Your task to perform on an android device: Open calendar and show me the first week of next month Image 0: 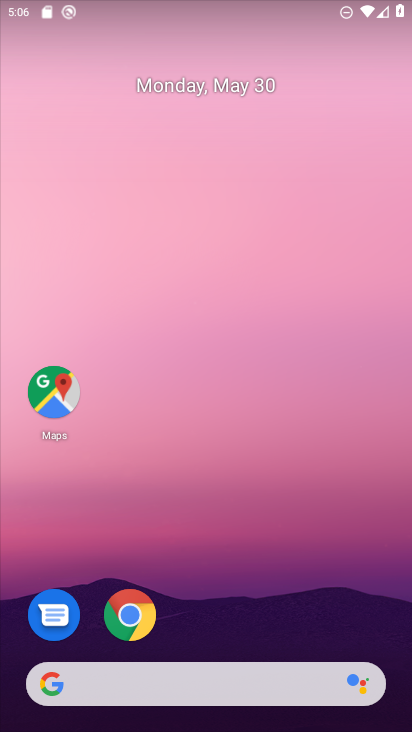
Step 0: click (170, 78)
Your task to perform on an android device: Open calendar and show me the first week of next month Image 1: 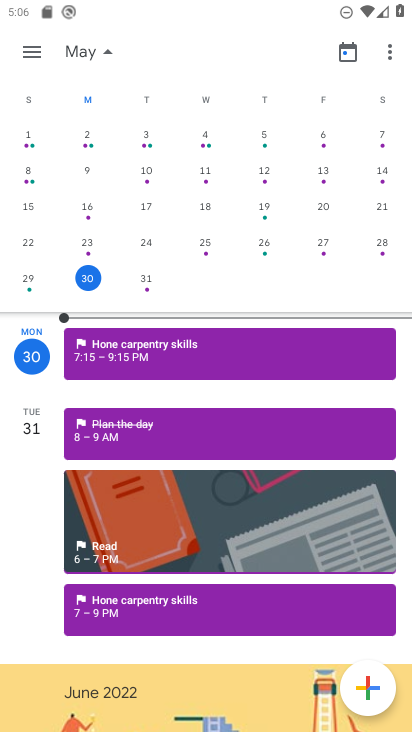
Step 1: task complete